Your task to perform on an android device: Empty the shopping cart on walmart. Add "razer nari" to the cart on walmart, then select checkout. Image 0: 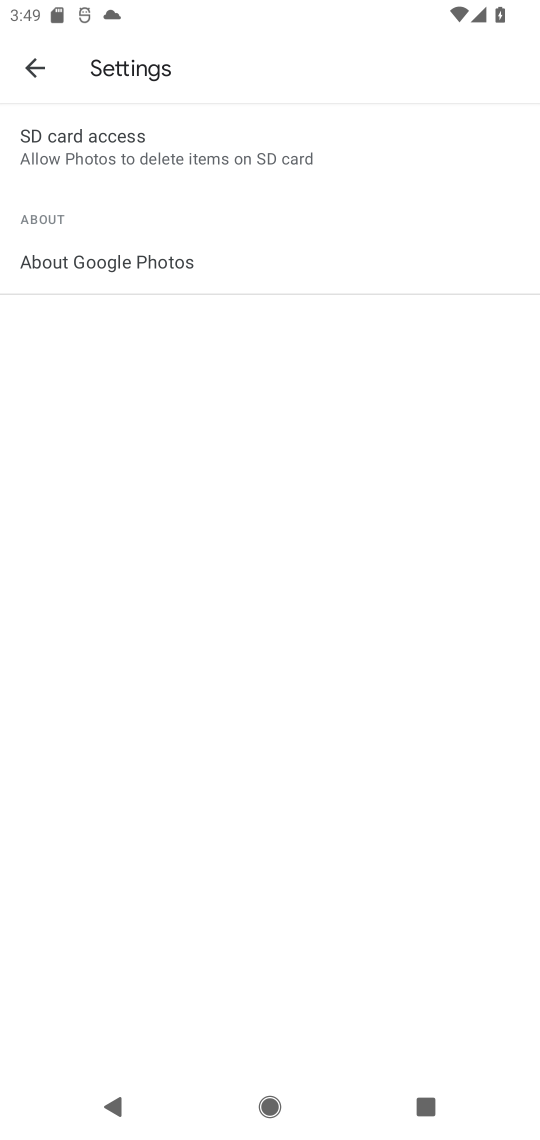
Step 0: press home button
Your task to perform on an android device: Empty the shopping cart on walmart. Add "razer nari" to the cart on walmart, then select checkout. Image 1: 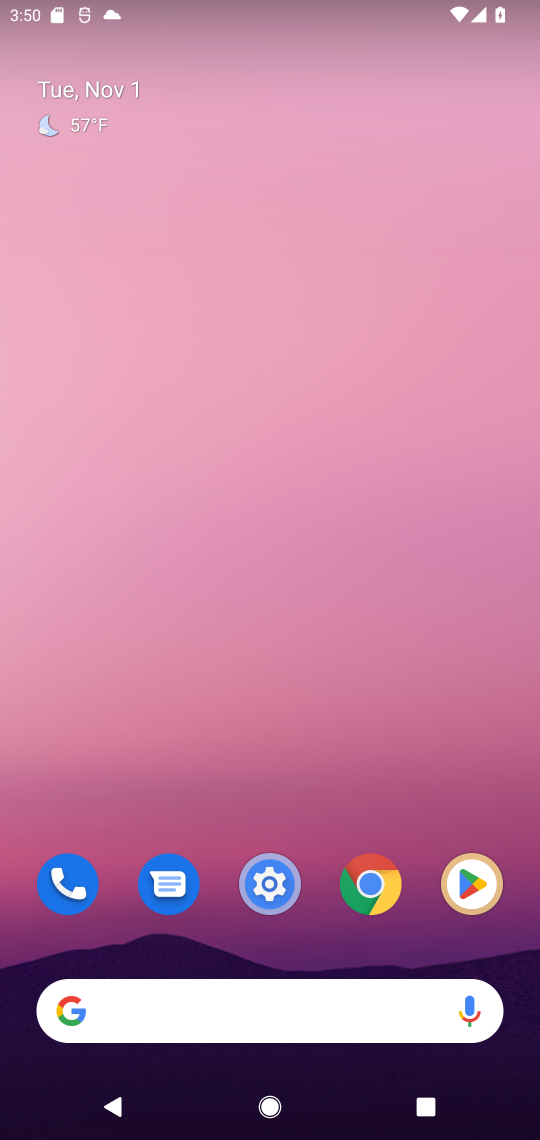
Step 1: click (94, 1007)
Your task to perform on an android device: Empty the shopping cart on walmart. Add "razer nari" to the cart on walmart, then select checkout. Image 2: 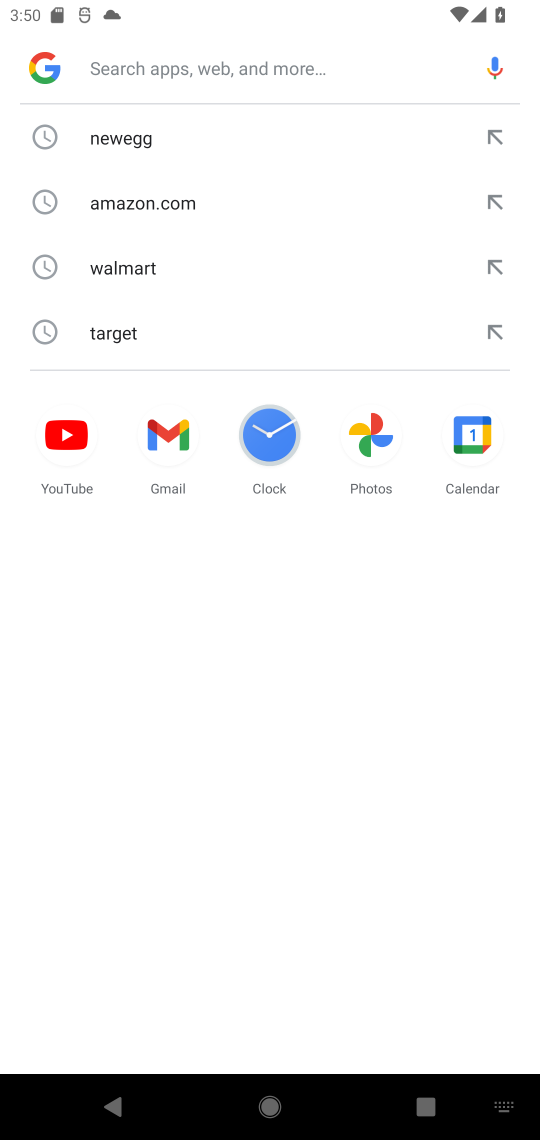
Step 2: type "walmart"
Your task to perform on an android device: Empty the shopping cart on walmart. Add "razer nari" to the cart on walmart, then select checkout. Image 3: 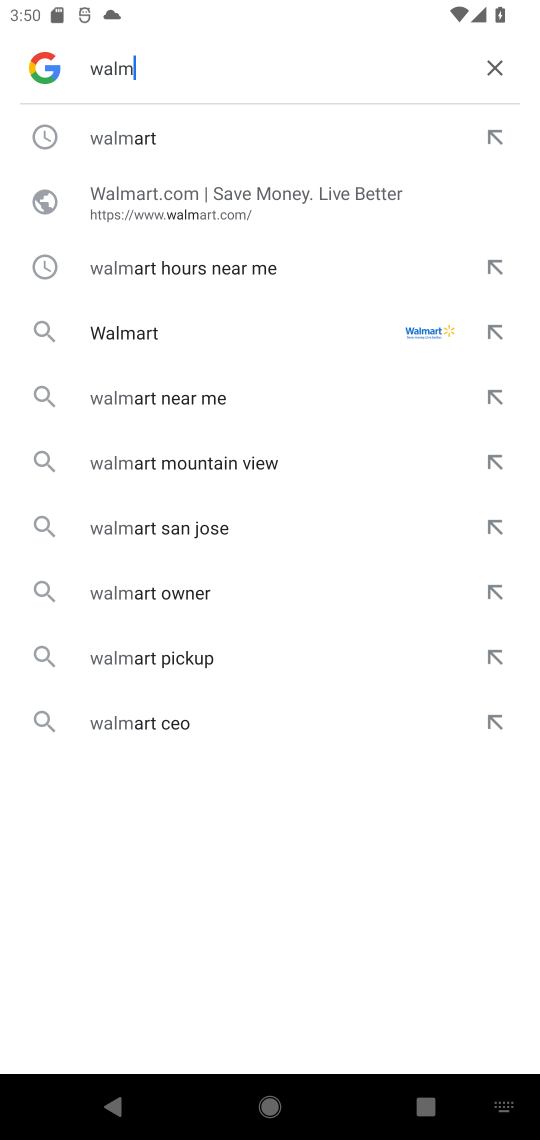
Step 3: press enter
Your task to perform on an android device: Empty the shopping cart on walmart. Add "razer nari" to the cart on walmart, then select checkout. Image 4: 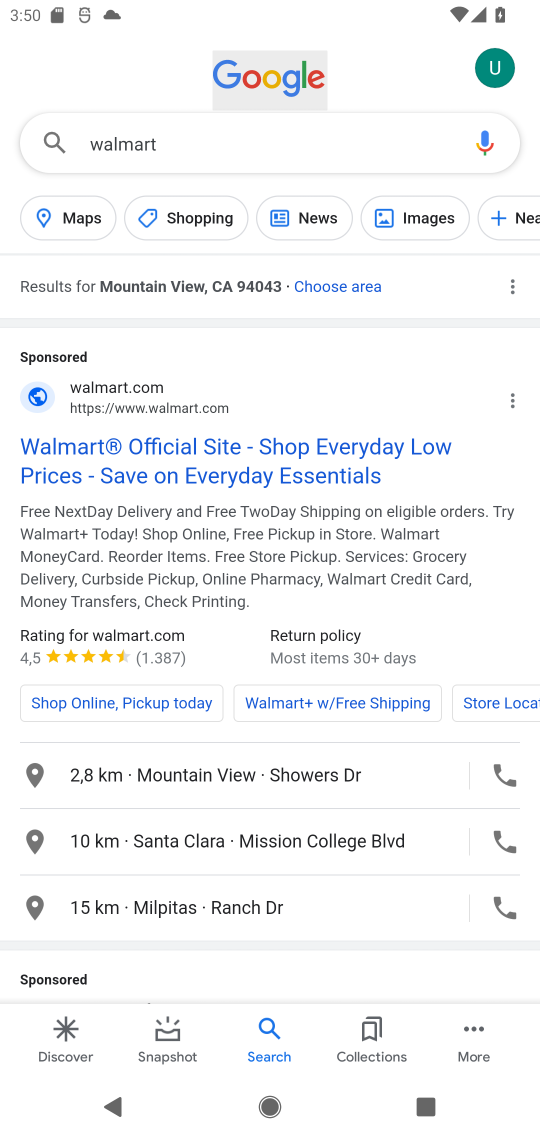
Step 4: click (219, 456)
Your task to perform on an android device: Empty the shopping cart on walmart. Add "razer nari" to the cart on walmart, then select checkout. Image 5: 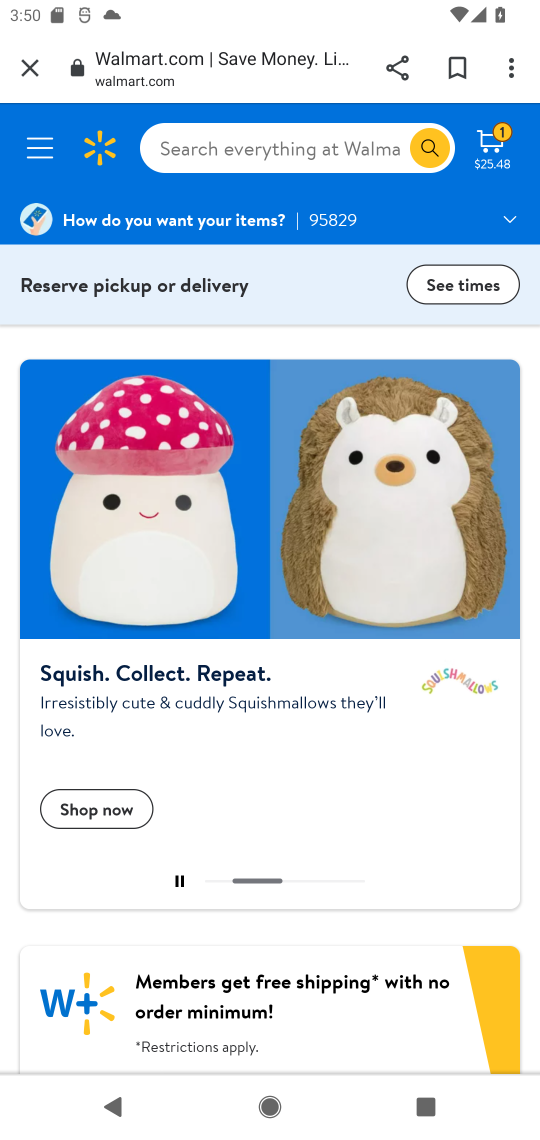
Step 5: click (485, 135)
Your task to perform on an android device: Empty the shopping cart on walmart. Add "razer nari" to the cart on walmart, then select checkout. Image 6: 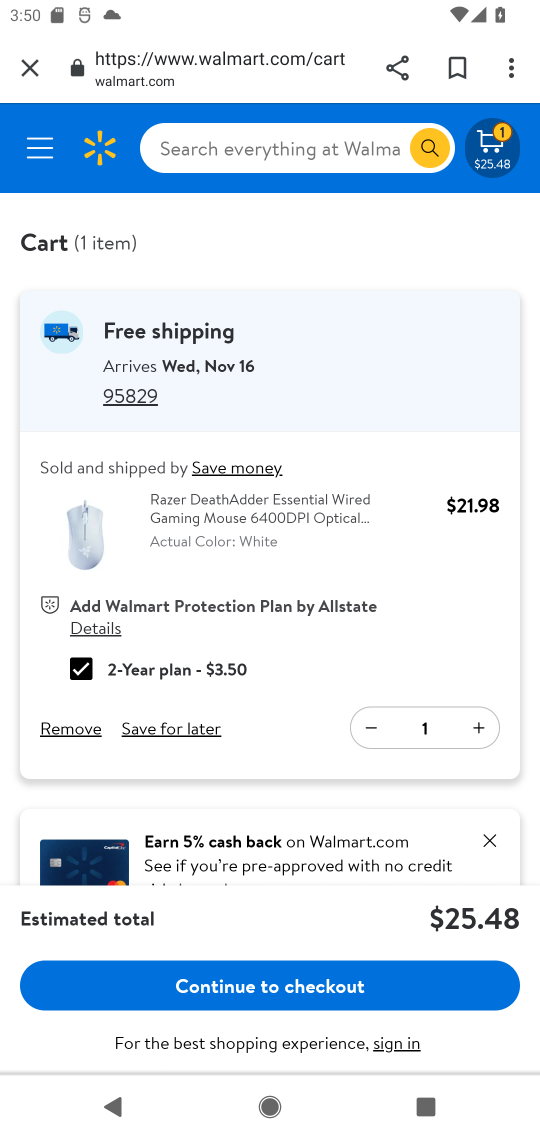
Step 6: click (64, 731)
Your task to perform on an android device: Empty the shopping cart on walmart. Add "razer nari" to the cart on walmart, then select checkout. Image 7: 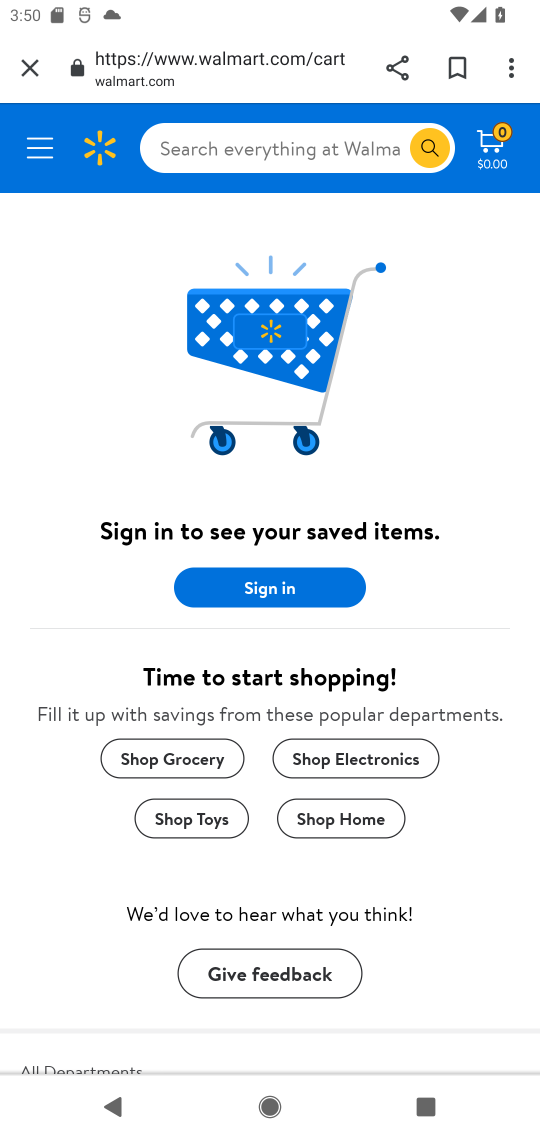
Step 7: click (197, 143)
Your task to perform on an android device: Empty the shopping cart on walmart. Add "razer nari" to the cart on walmart, then select checkout. Image 8: 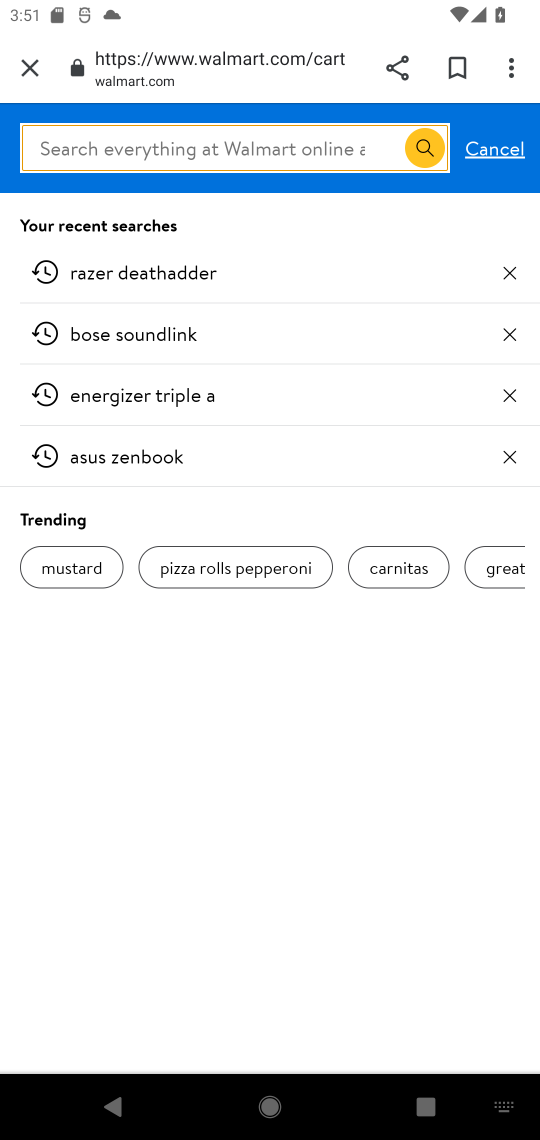
Step 8: press enter
Your task to perform on an android device: Empty the shopping cart on walmart. Add "razer nari" to the cart on walmart, then select checkout. Image 9: 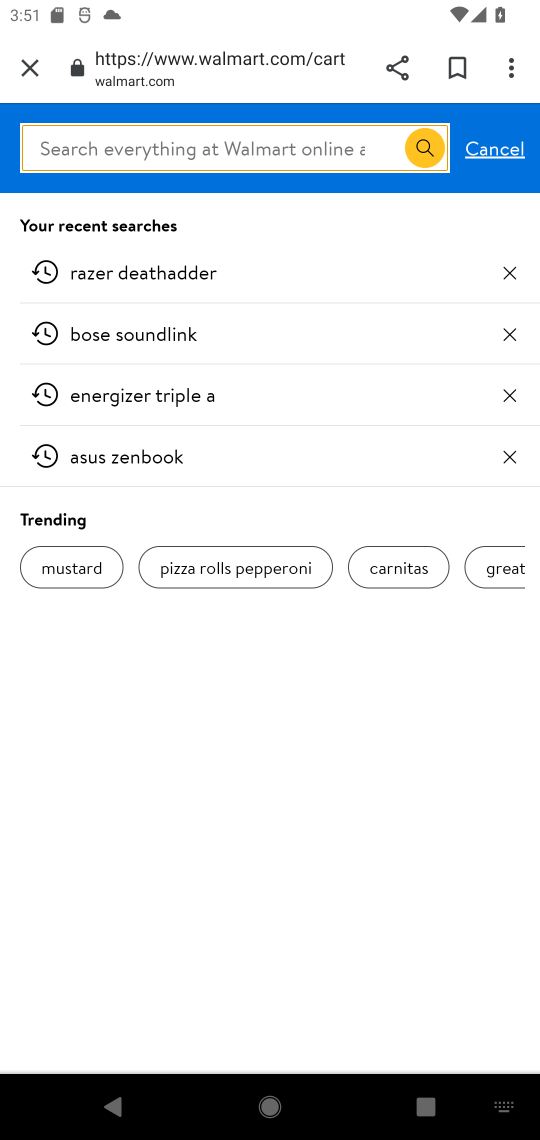
Step 9: type "razer nari"
Your task to perform on an android device: Empty the shopping cart on walmart. Add "razer nari" to the cart on walmart, then select checkout. Image 10: 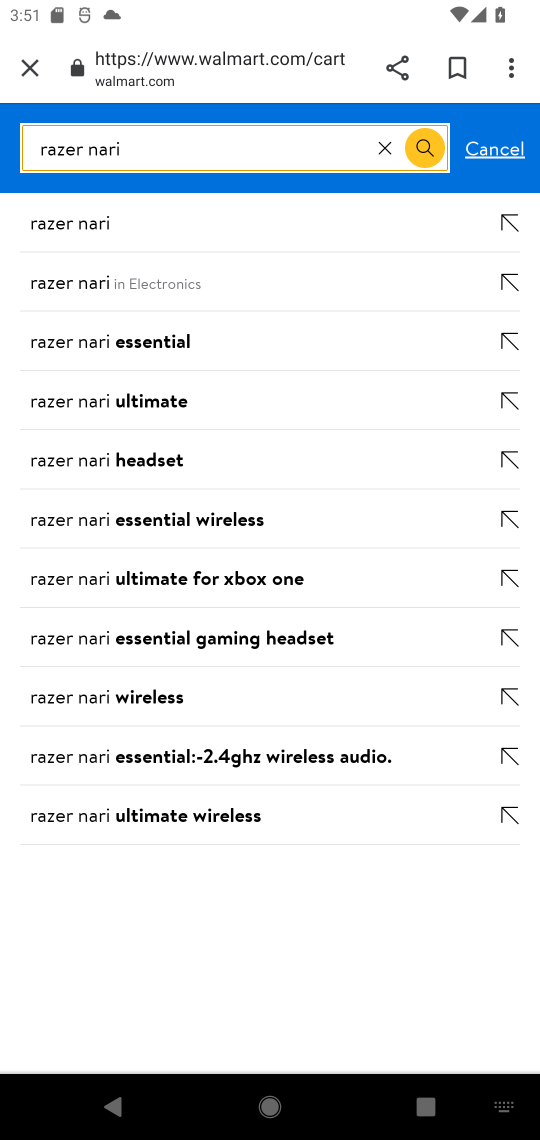
Step 10: click (423, 147)
Your task to perform on an android device: Empty the shopping cart on walmart. Add "razer nari" to the cart on walmart, then select checkout. Image 11: 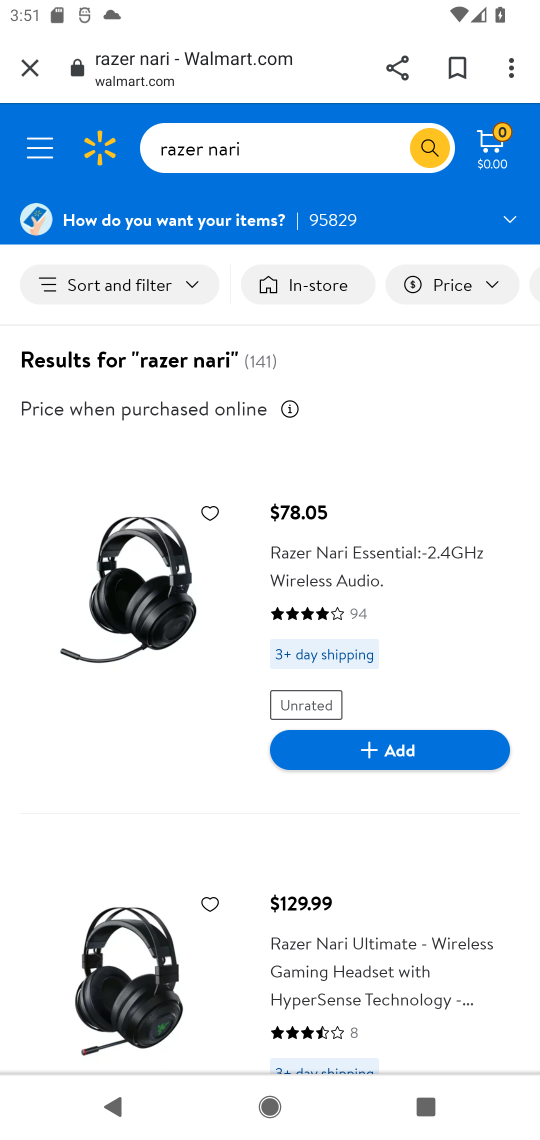
Step 11: click (371, 753)
Your task to perform on an android device: Empty the shopping cart on walmart. Add "razer nari" to the cart on walmart, then select checkout. Image 12: 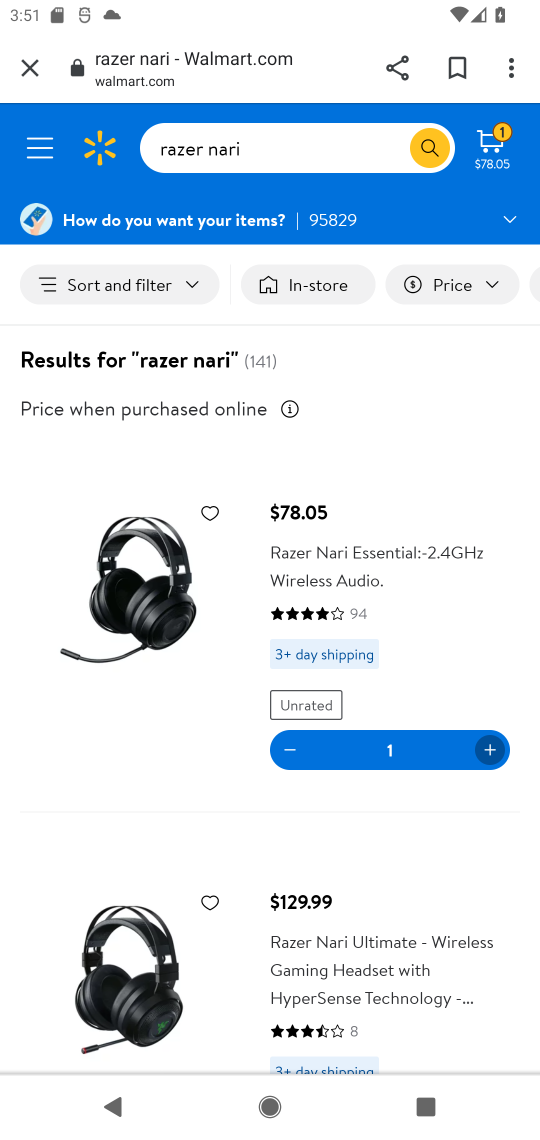
Step 12: click (497, 149)
Your task to perform on an android device: Empty the shopping cart on walmart. Add "razer nari" to the cart on walmart, then select checkout. Image 13: 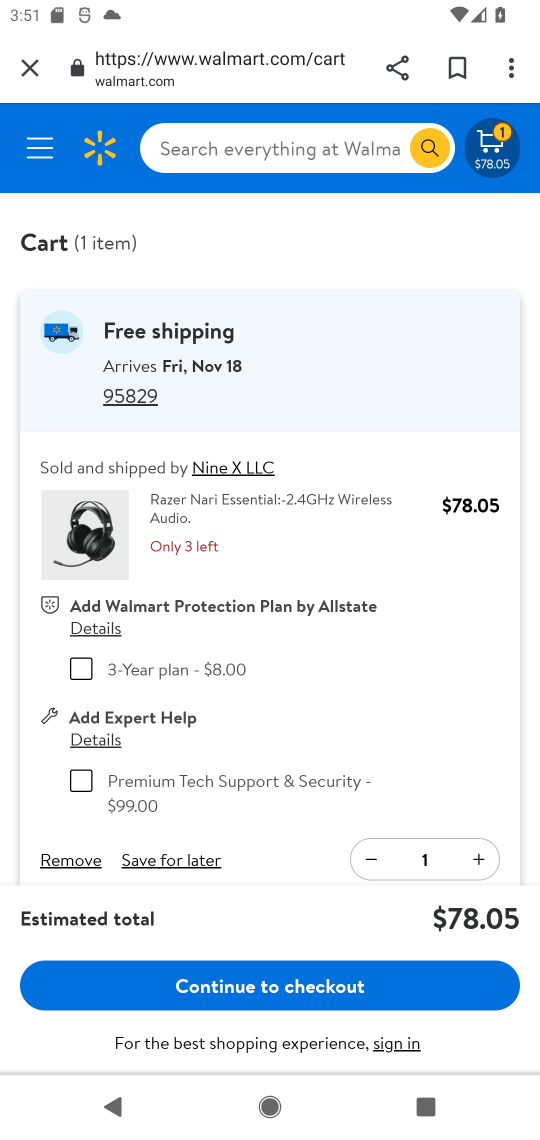
Step 13: click (233, 987)
Your task to perform on an android device: Empty the shopping cart on walmart. Add "razer nari" to the cart on walmart, then select checkout. Image 14: 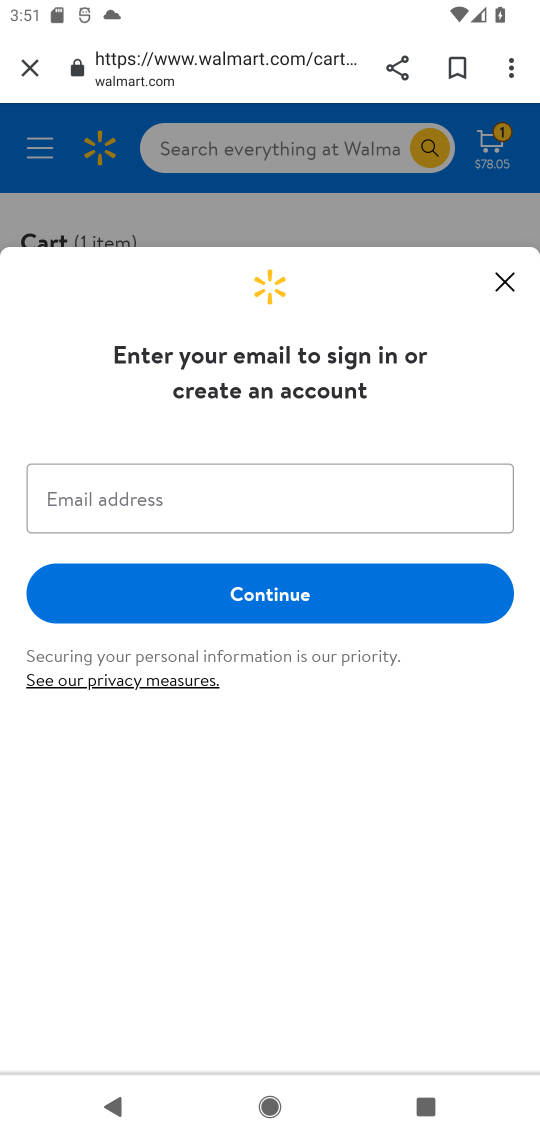
Step 14: task complete